Your task to perform on an android device: change keyboard looks Image 0: 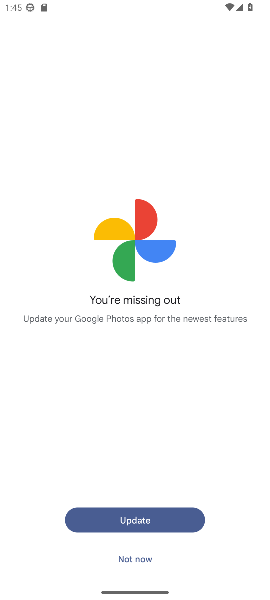
Step 0: press back button
Your task to perform on an android device: change keyboard looks Image 1: 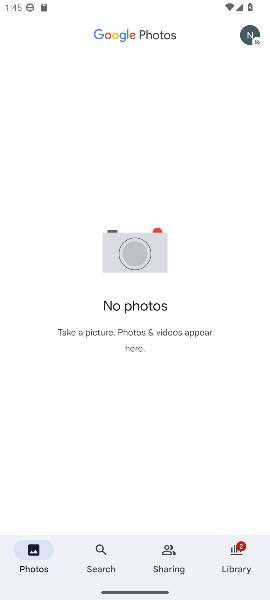
Step 1: press home button
Your task to perform on an android device: change keyboard looks Image 2: 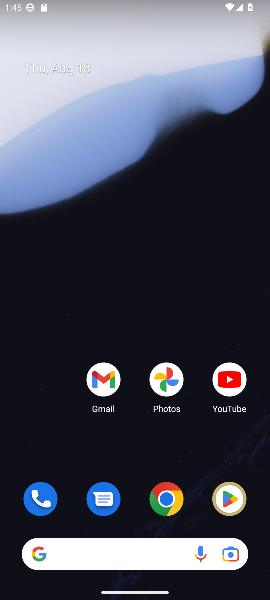
Step 2: drag from (138, 516) to (118, 152)
Your task to perform on an android device: change keyboard looks Image 3: 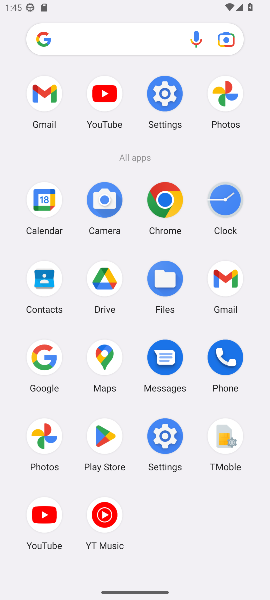
Step 3: click (164, 94)
Your task to perform on an android device: change keyboard looks Image 4: 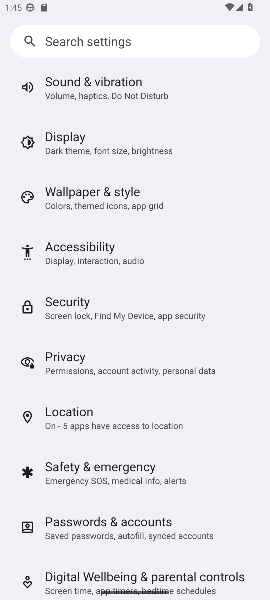
Step 4: drag from (126, 495) to (121, 194)
Your task to perform on an android device: change keyboard looks Image 5: 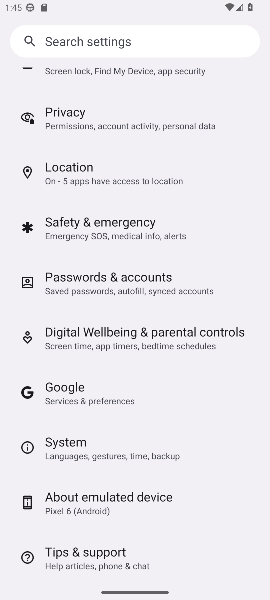
Step 5: click (67, 439)
Your task to perform on an android device: change keyboard looks Image 6: 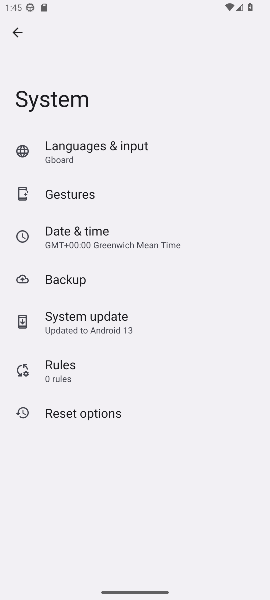
Step 6: click (66, 145)
Your task to perform on an android device: change keyboard looks Image 7: 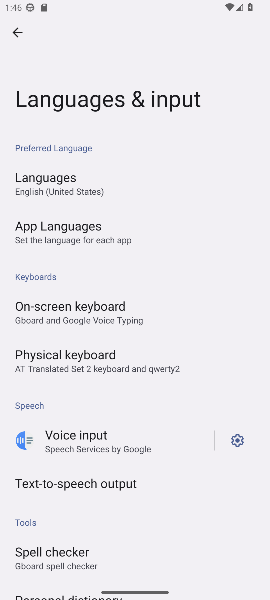
Step 7: click (67, 304)
Your task to perform on an android device: change keyboard looks Image 8: 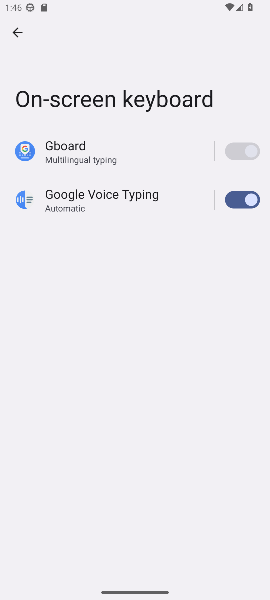
Step 8: click (31, 147)
Your task to perform on an android device: change keyboard looks Image 9: 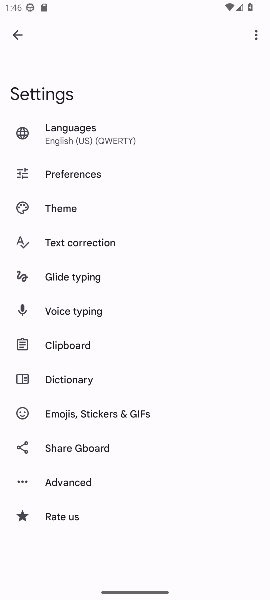
Step 9: click (49, 205)
Your task to perform on an android device: change keyboard looks Image 10: 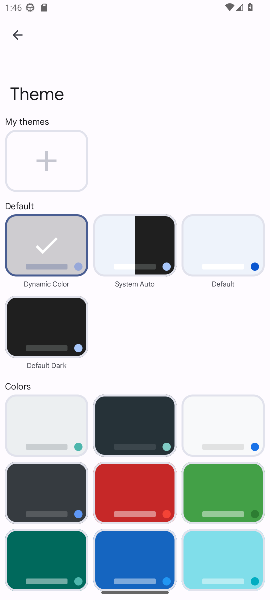
Step 10: click (148, 250)
Your task to perform on an android device: change keyboard looks Image 11: 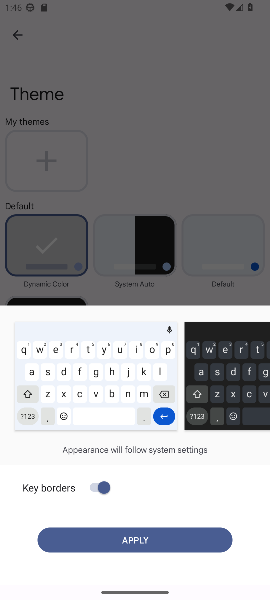
Step 11: click (140, 537)
Your task to perform on an android device: change keyboard looks Image 12: 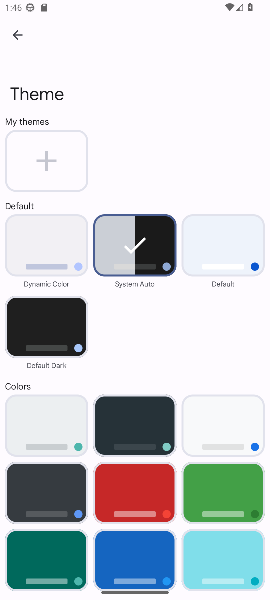
Step 12: task complete